Your task to perform on an android device: check google app version Image 0: 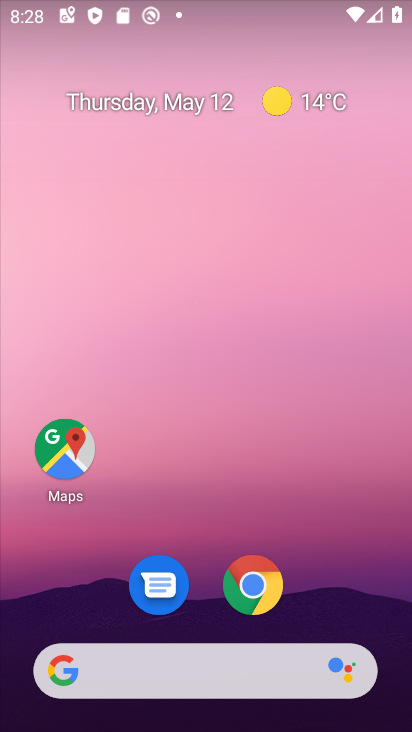
Step 0: drag from (228, 501) to (214, 27)
Your task to perform on an android device: check google app version Image 1: 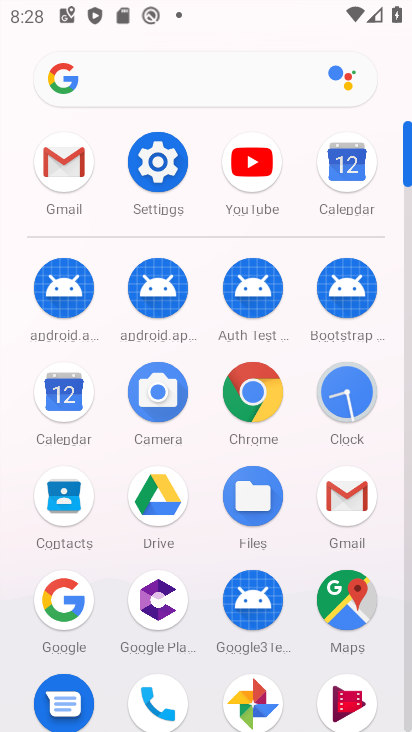
Step 1: click (71, 597)
Your task to perform on an android device: check google app version Image 2: 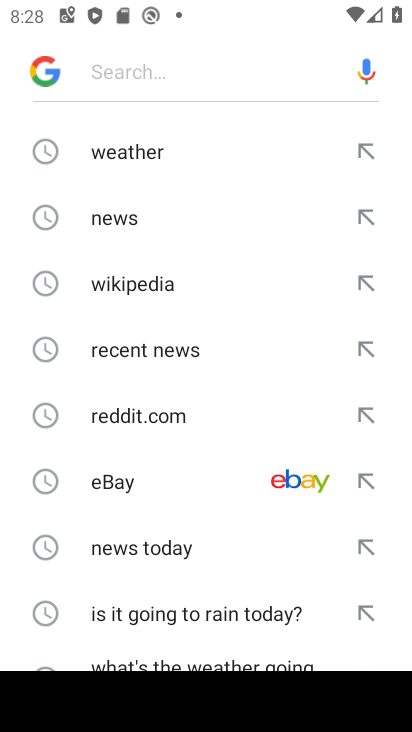
Step 2: click (46, 74)
Your task to perform on an android device: check google app version Image 3: 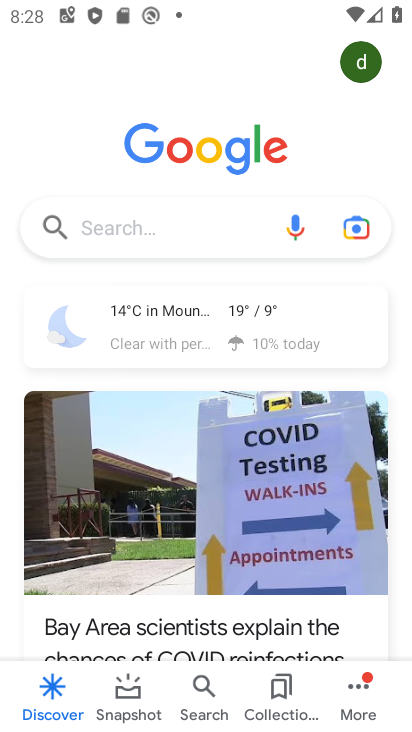
Step 3: click (357, 683)
Your task to perform on an android device: check google app version Image 4: 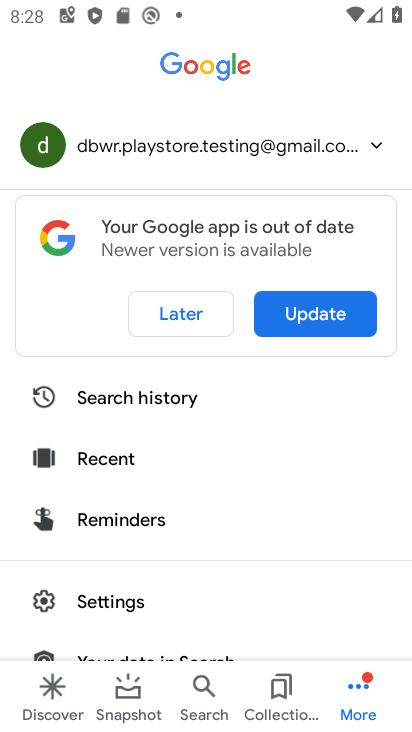
Step 4: click (189, 583)
Your task to perform on an android device: check google app version Image 5: 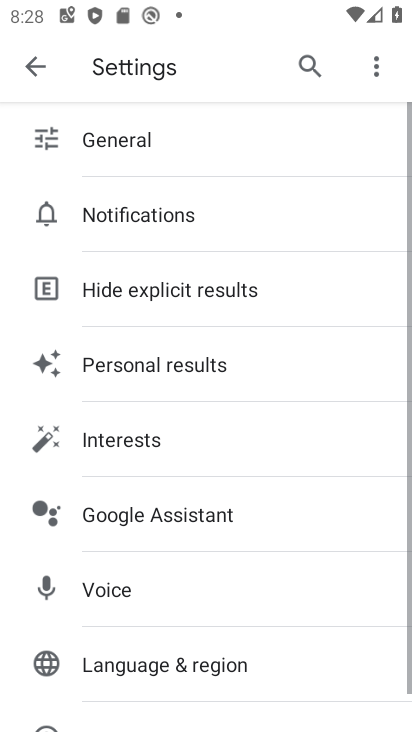
Step 5: drag from (188, 576) to (189, 354)
Your task to perform on an android device: check google app version Image 6: 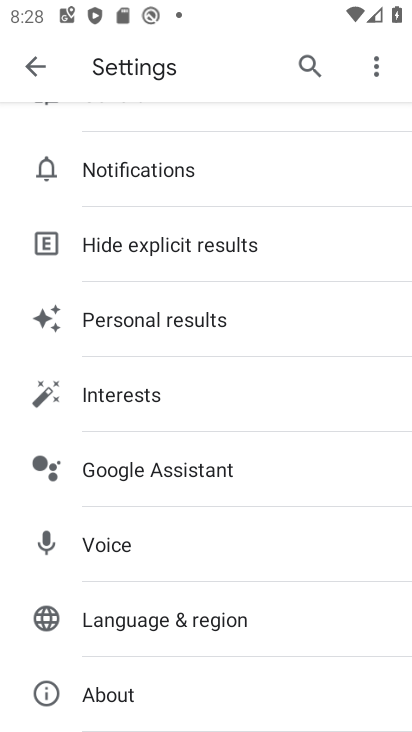
Step 6: click (105, 681)
Your task to perform on an android device: check google app version Image 7: 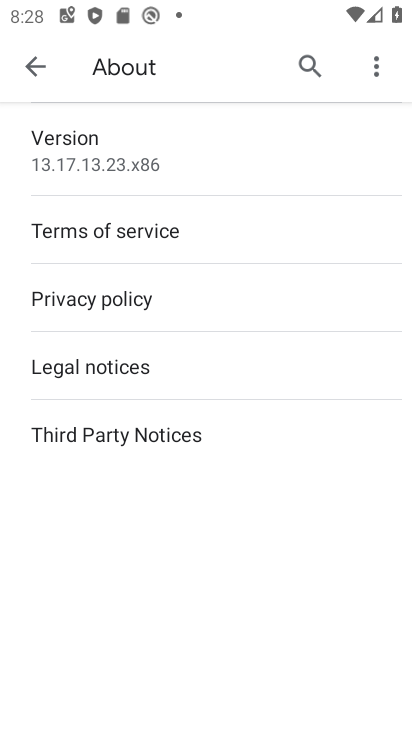
Step 7: task complete